Your task to perform on an android device: Search for a new foundation (skincare) product Image 0: 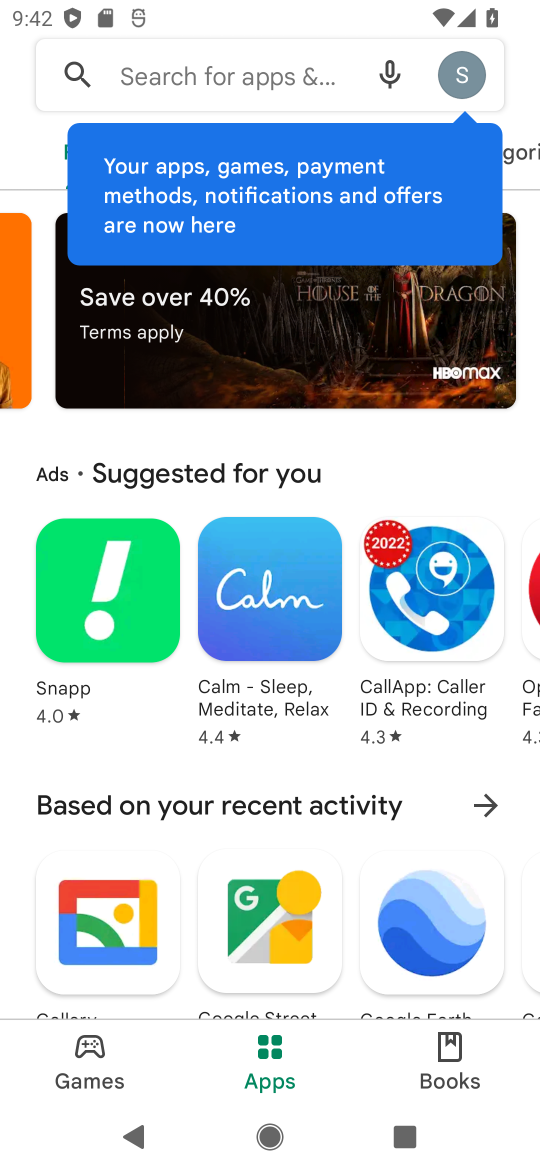
Step 0: press home button
Your task to perform on an android device: Search for a new foundation (skincare) product Image 1: 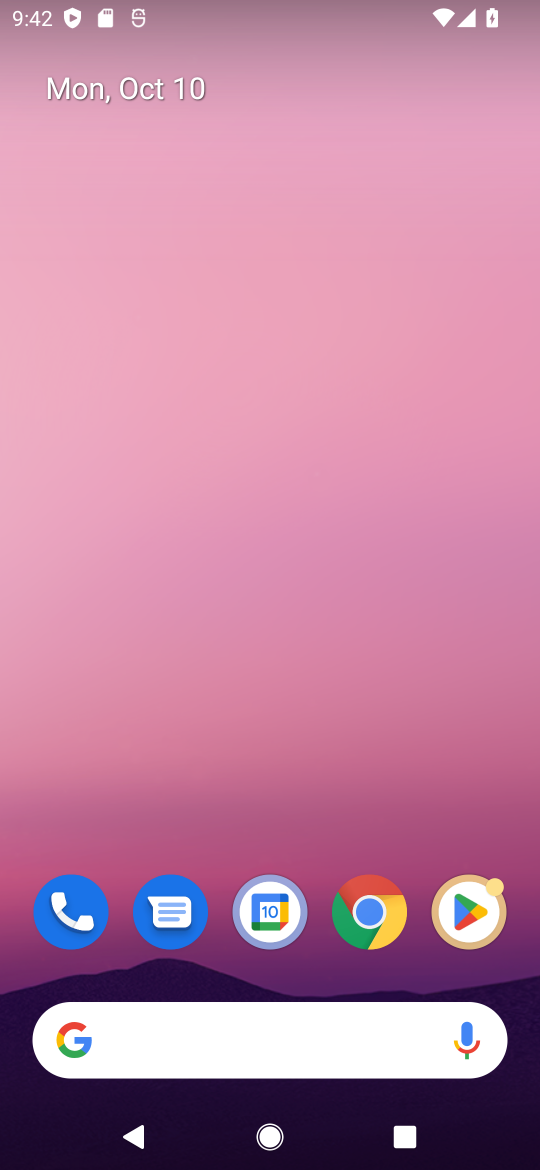
Step 1: click (359, 911)
Your task to perform on an android device: Search for a new foundation (skincare) product Image 2: 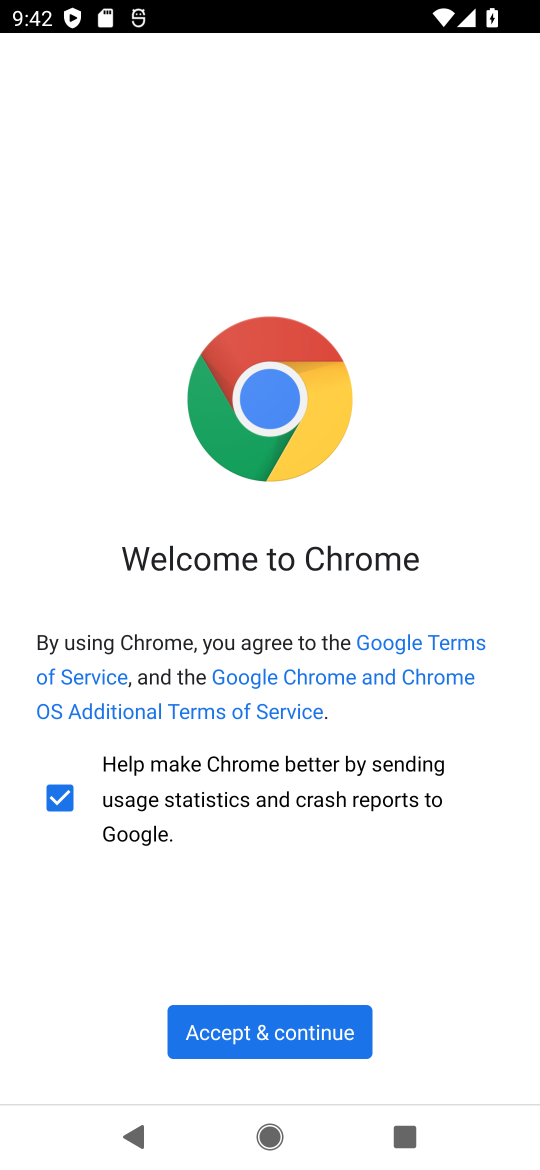
Step 2: click (227, 1027)
Your task to perform on an android device: Search for a new foundation (skincare) product Image 3: 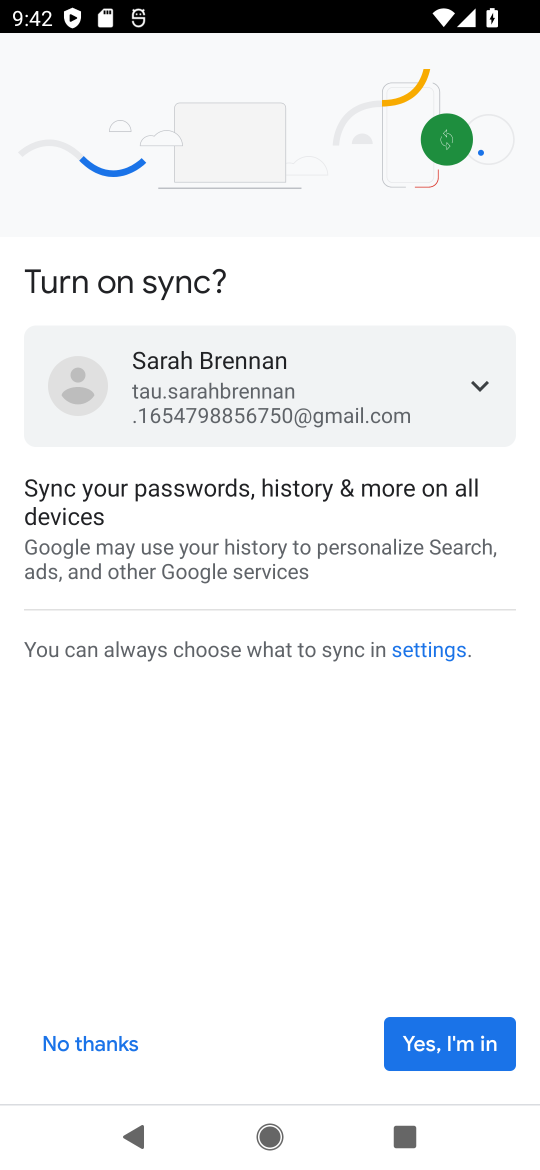
Step 3: click (415, 1054)
Your task to perform on an android device: Search for a new foundation (skincare) product Image 4: 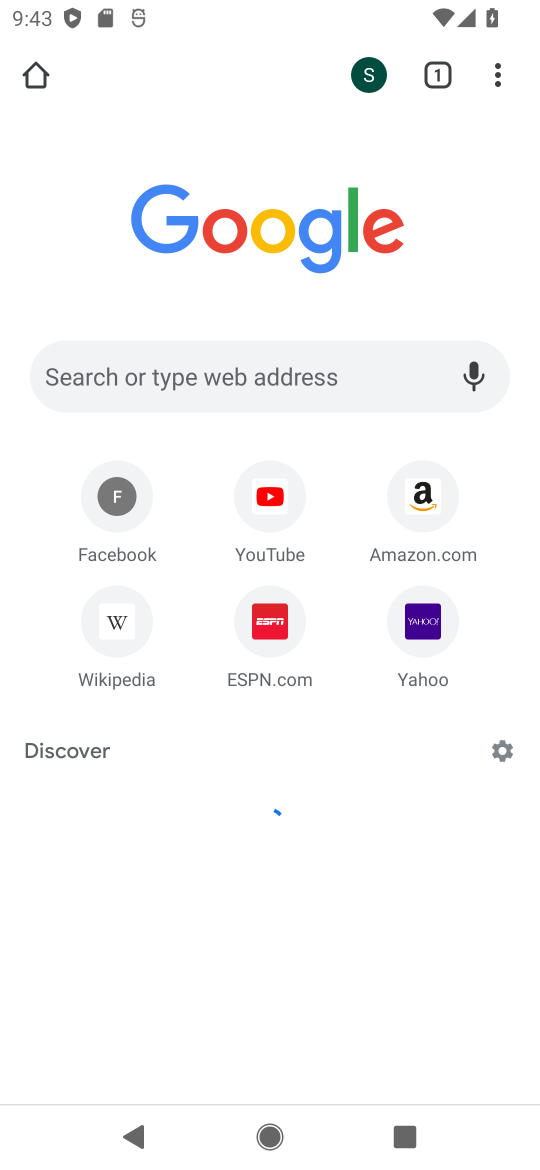
Step 4: click (194, 372)
Your task to perform on an android device: Search for a new foundation (skincare) product Image 5: 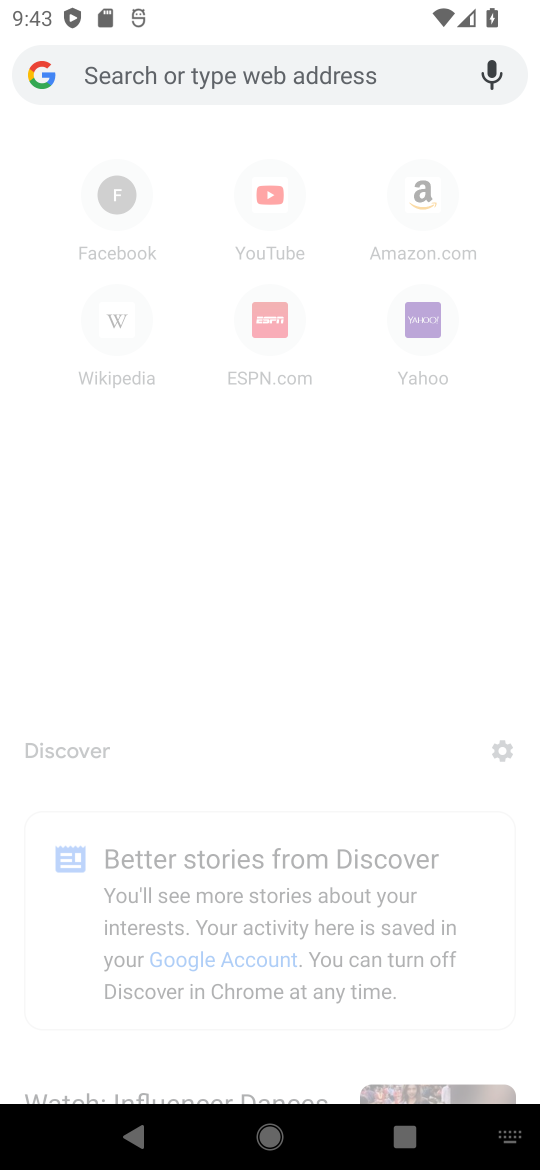
Step 5: type "new foundation (skincare) product"
Your task to perform on an android device: Search for a new foundation (skincare) product Image 6: 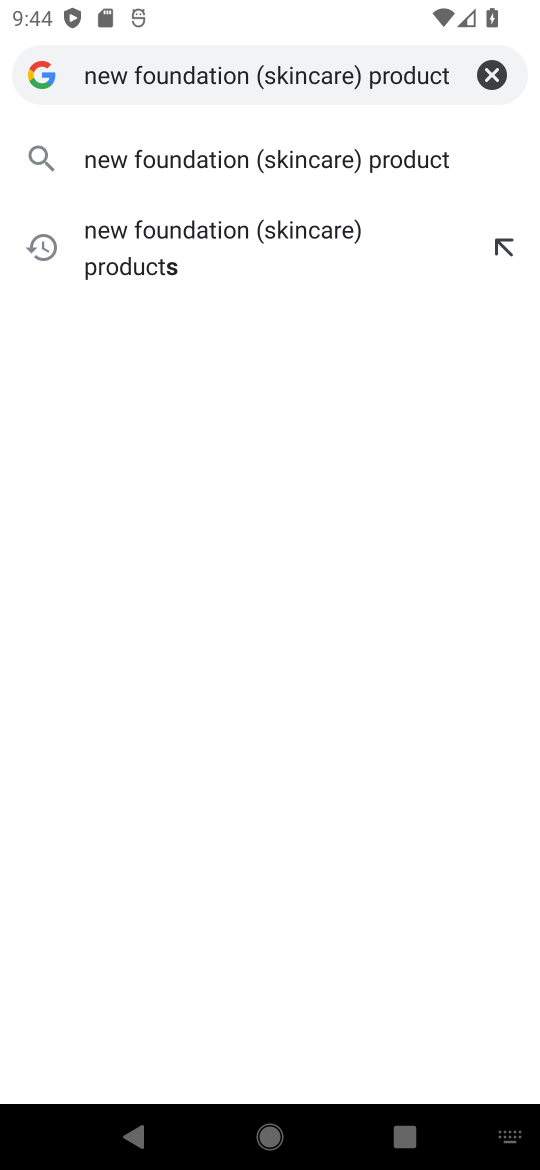
Step 6: click (361, 159)
Your task to perform on an android device: Search for a new foundation (skincare) product Image 7: 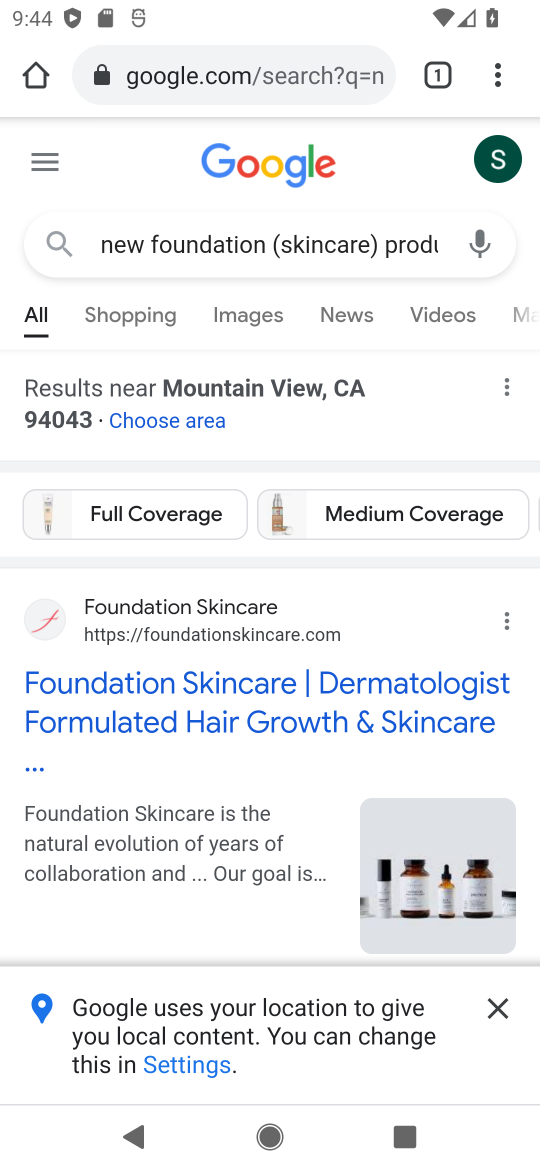
Step 7: click (492, 1008)
Your task to perform on an android device: Search for a new foundation (skincare) product Image 8: 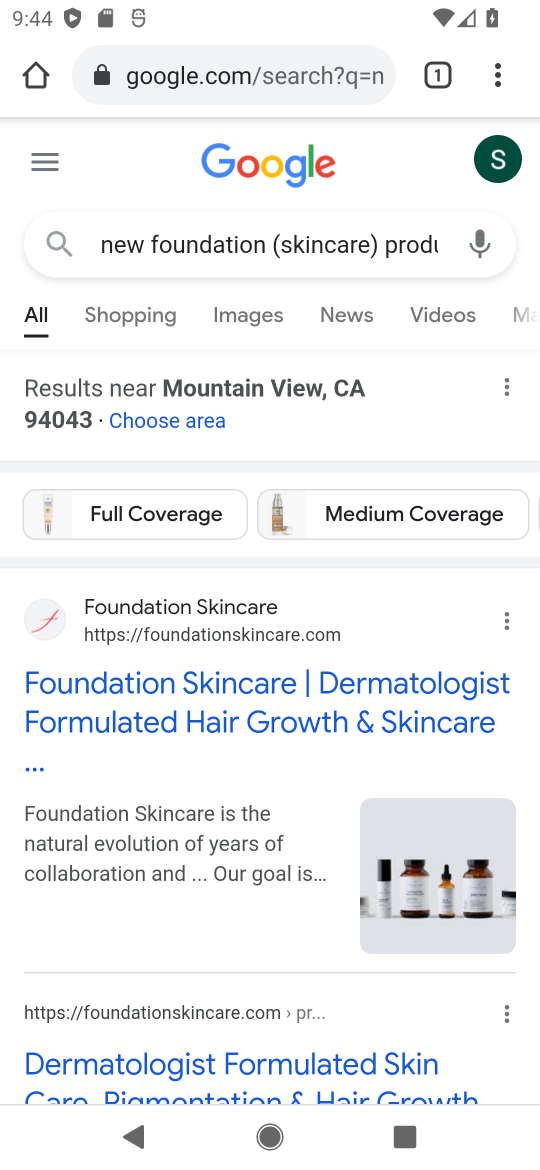
Step 8: click (305, 711)
Your task to perform on an android device: Search for a new foundation (skincare) product Image 9: 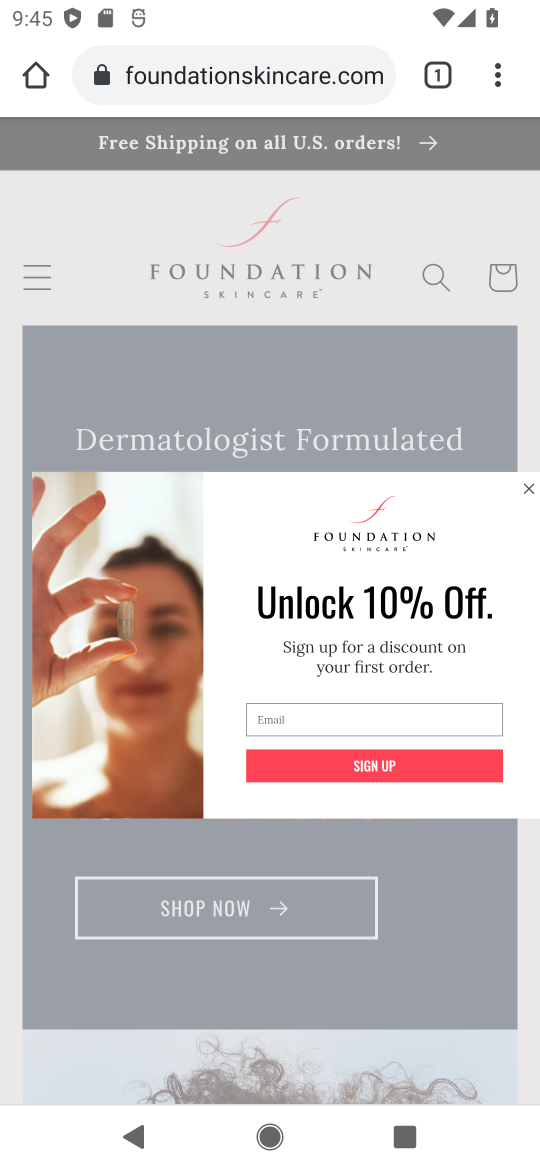
Step 9: task complete